Your task to perform on an android device: create a new album in the google photos Image 0: 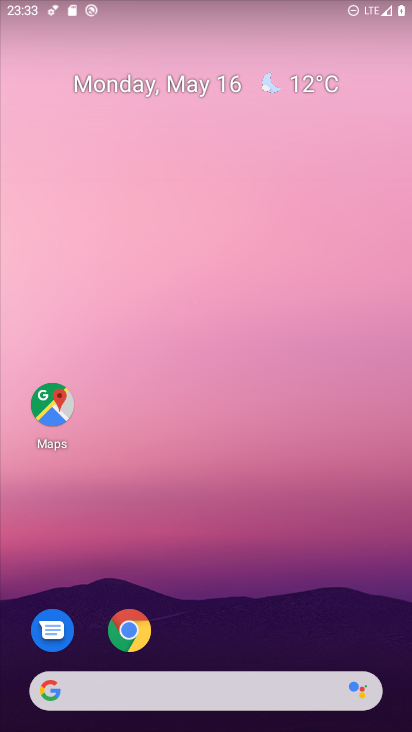
Step 0: drag from (238, 549) to (230, 11)
Your task to perform on an android device: create a new album in the google photos Image 1: 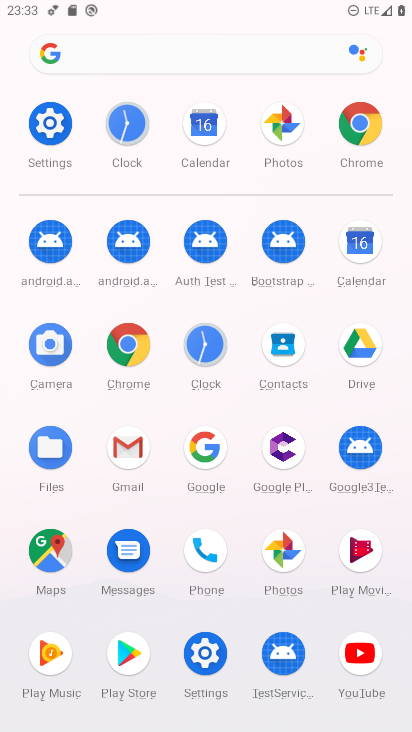
Step 1: click (283, 108)
Your task to perform on an android device: create a new album in the google photos Image 2: 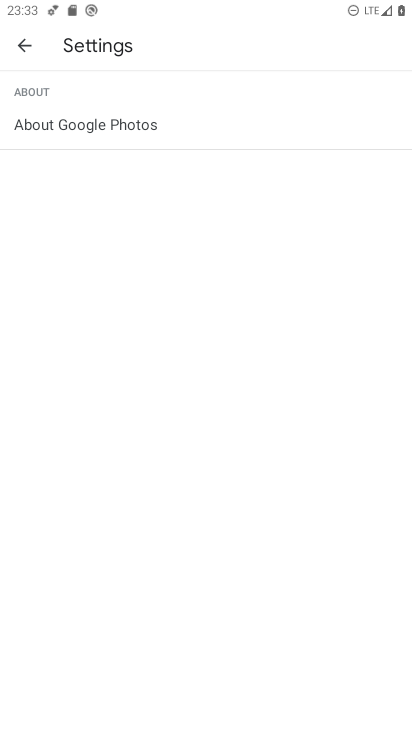
Step 2: click (24, 33)
Your task to perform on an android device: create a new album in the google photos Image 3: 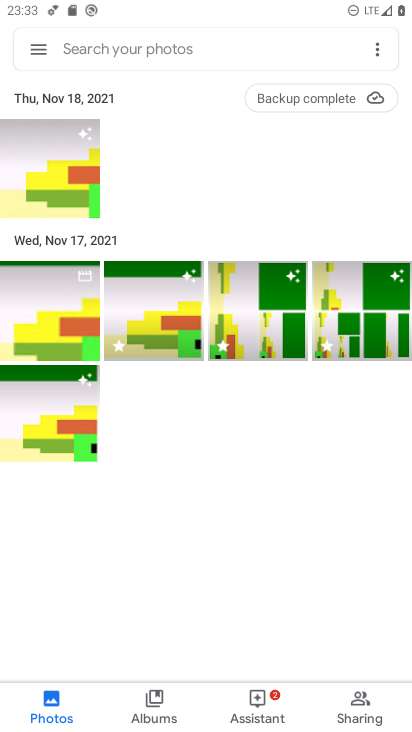
Step 3: click (156, 709)
Your task to perform on an android device: create a new album in the google photos Image 4: 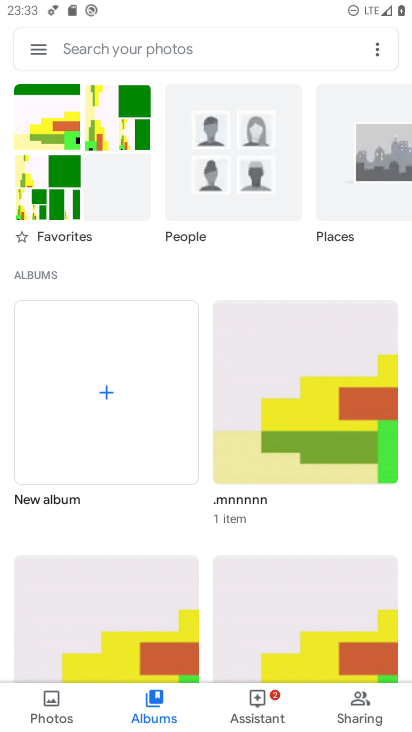
Step 4: click (101, 401)
Your task to perform on an android device: create a new album in the google photos Image 5: 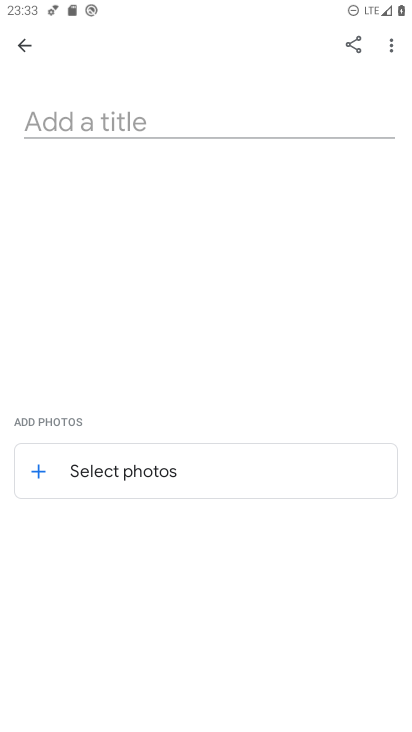
Step 5: click (165, 106)
Your task to perform on an android device: create a new album in the google photos Image 6: 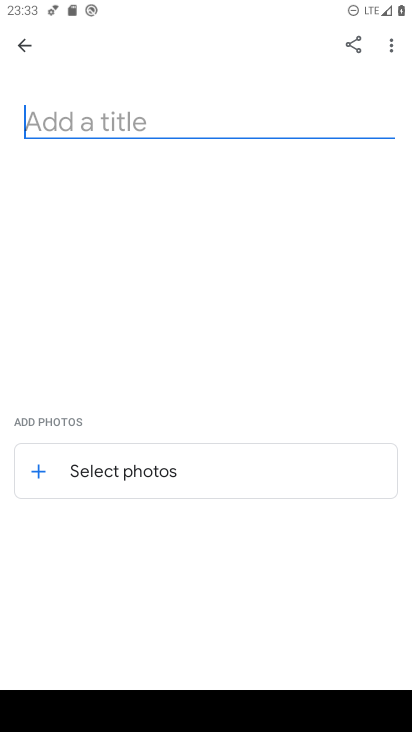
Step 6: type "Gyanvapi Temple Varanasi Bharat"
Your task to perform on an android device: create a new album in the google photos Image 7: 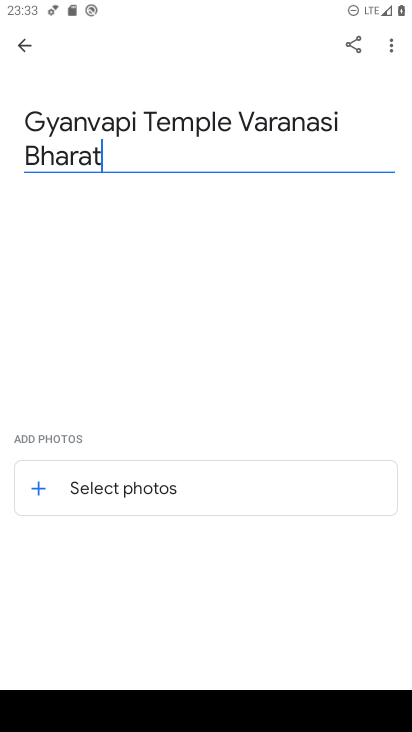
Step 7: click (93, 487)
Your task to perform on an android device: create a new album in the google photos Image 8: 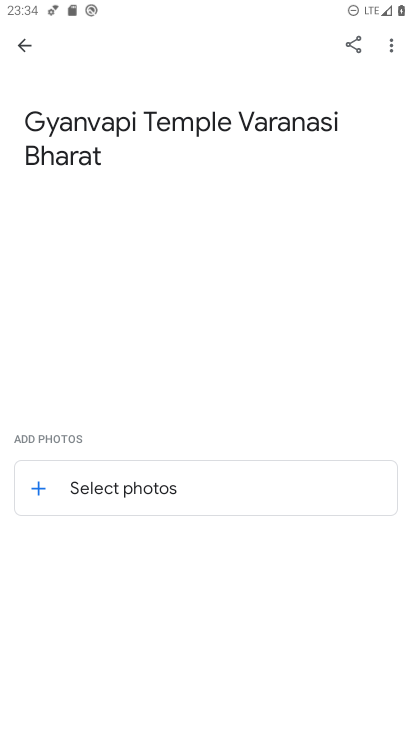
Step 8: click (37, 486)
Your task to perform on an android device: create a new album in the google photos Image 9: 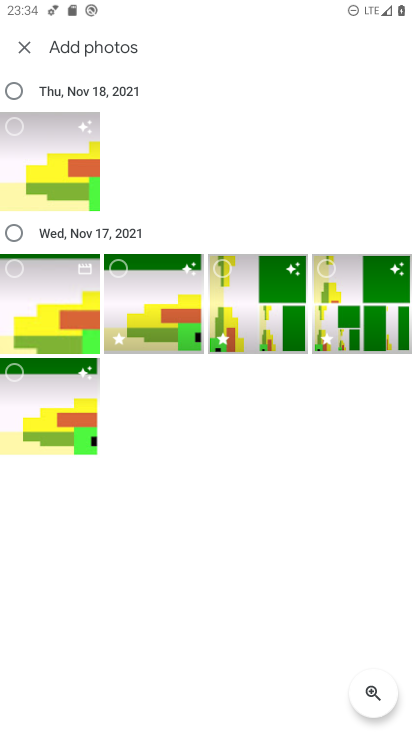
Step 9: click (13, 364)
Your task to perform on an android device: create a new album in the google photos Image 10: 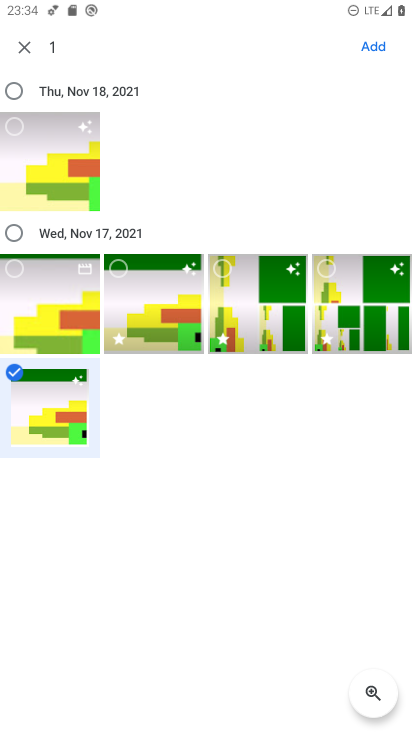
Step 10: click (367, 34)
Your task to perform on an android device: create a new album in the google photos Image 11: 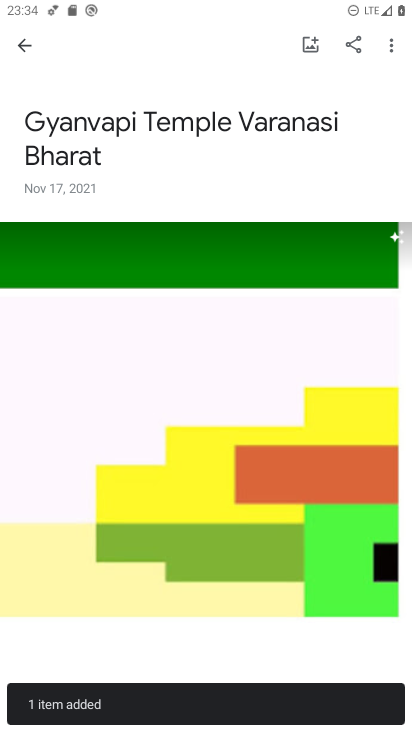
Step 11: task complete